Your task to perform on an android device: Is it going to rain tomorrow? Image 0: 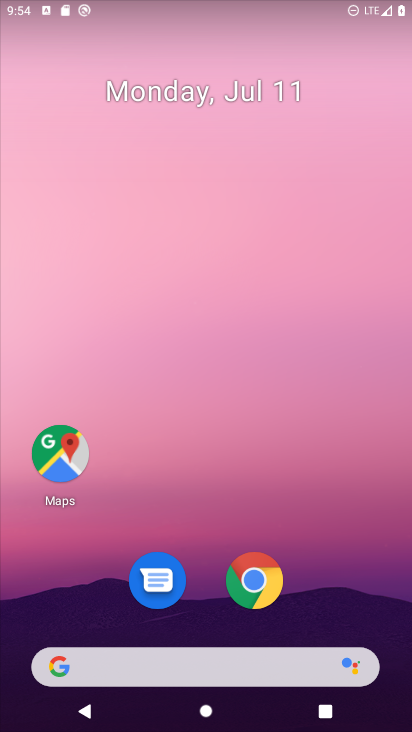
Step 0: click (247, 672)
Your task to perform on an android device: Is it going to rain tomorrow? Image 1: 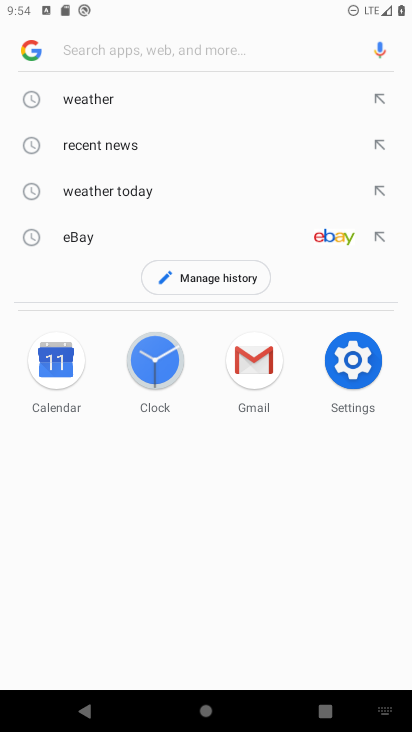
Step 1: click (90, 94)
Your task to perform on an android device: Is it going to rain tomorrow? Image 2: 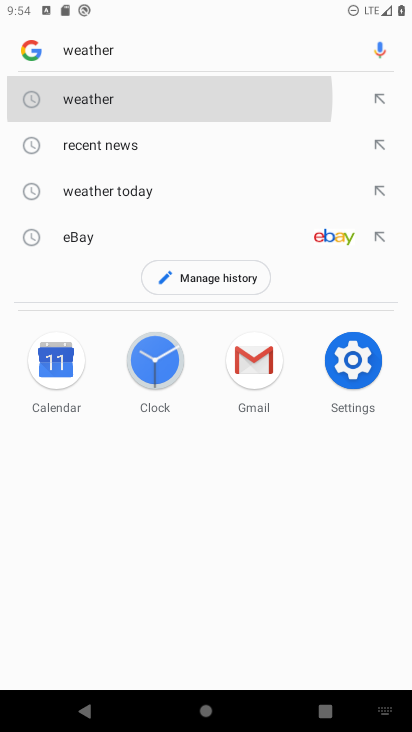
Step 2: click (84, 100)
Your task to perform on an android device: Is it going to rain tomorrow? Image 3: 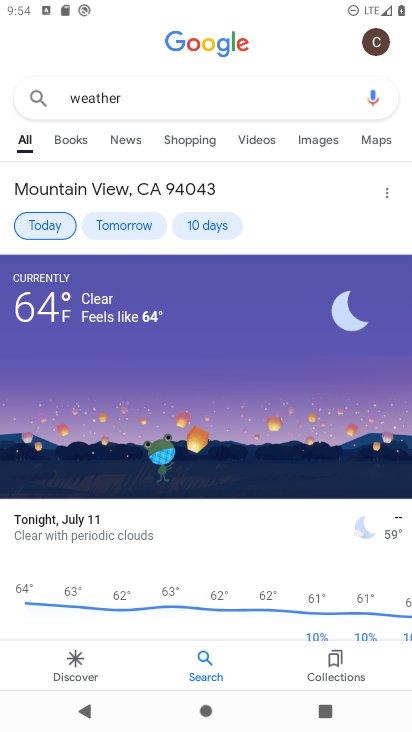
Step 3: click (57, 230)
Your task to perform on an android device: Is it going to rain tomorrow? Image 4: 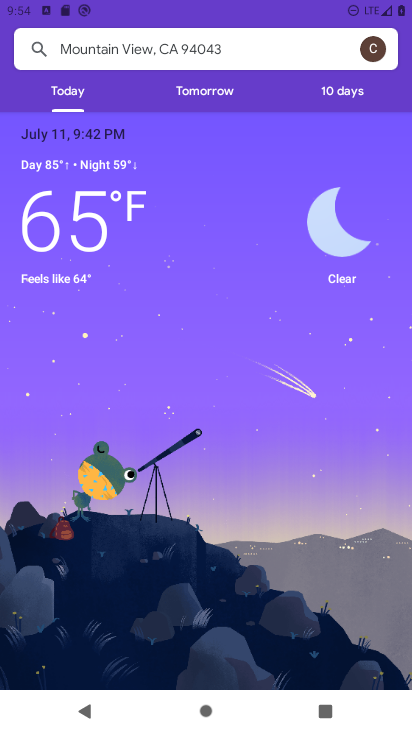
Step 4: click (216, 91)
Your task to perform on an android device: Is it going to rain tomorrow? Image 5: 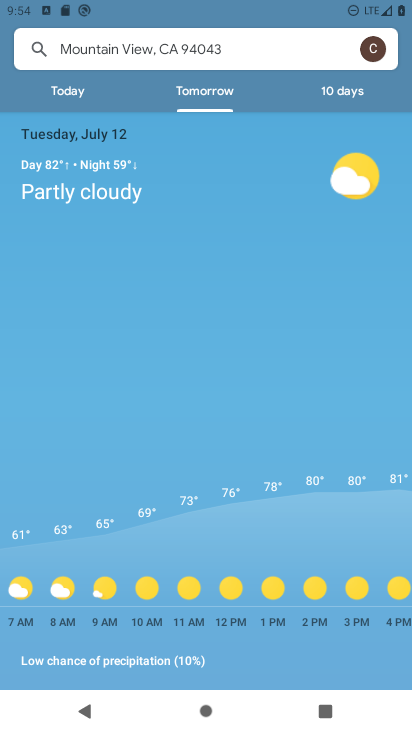
Step 5: task complete